Your task to perform on an android device: Go to notification settings Image 0: 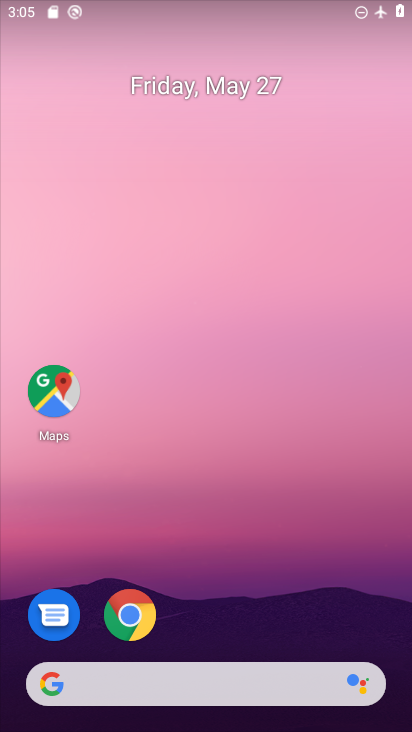
Step 0: drag from (234, 388) to (170, 19)
Your task to perform on an android device: Go to notification settings Image 1: 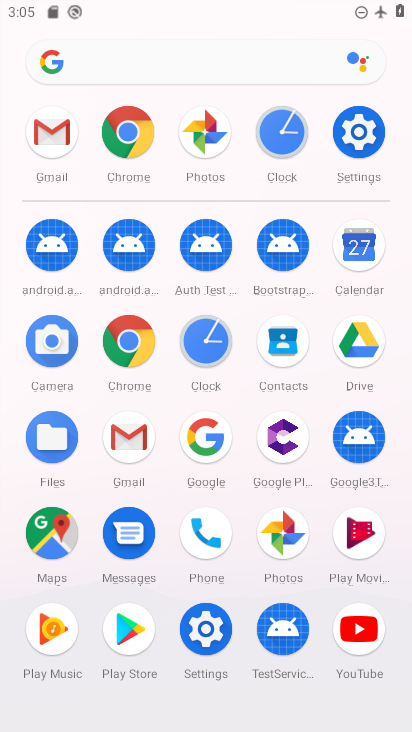
Step 1: click (346, 147)
Your task to perform on an android device: Go to notification settings Image 2: 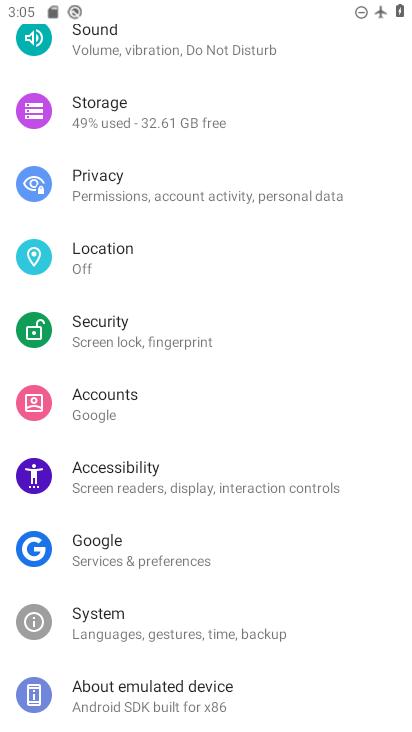
Step 2: drag from (213, 586) to (203, 670)
Your task to perform on an android device: Go to notification settings Image 3: 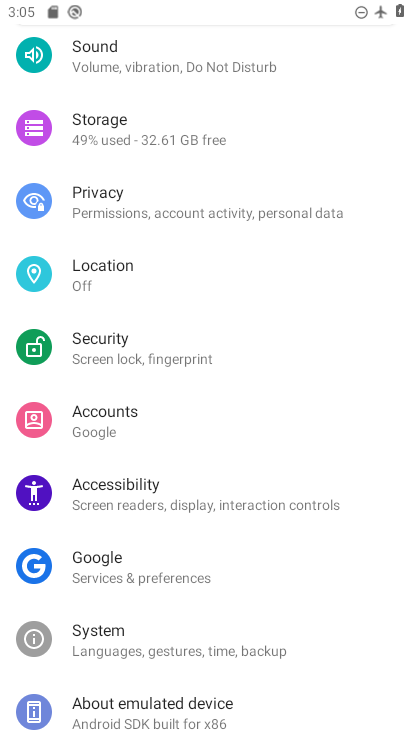
Step 3: drag from (203, 131) to (172, 596)
Your task to perform on an android device: Go to notification settings Image 4: 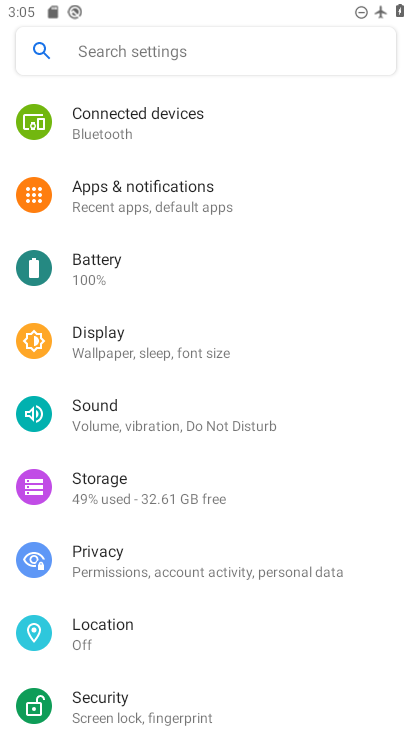
Step 4: click (155, 181)
Your task to perform on an android device: Go to notification settings Image 5: 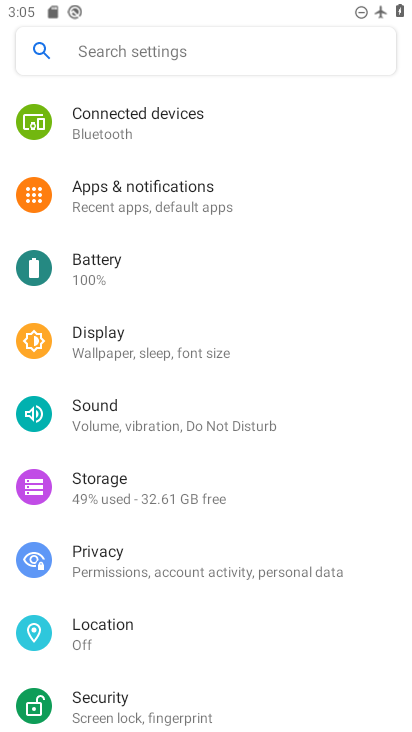
Step 5: task complete